Your task to perform on an android device: open a bookmark in the chrome app Image 0: 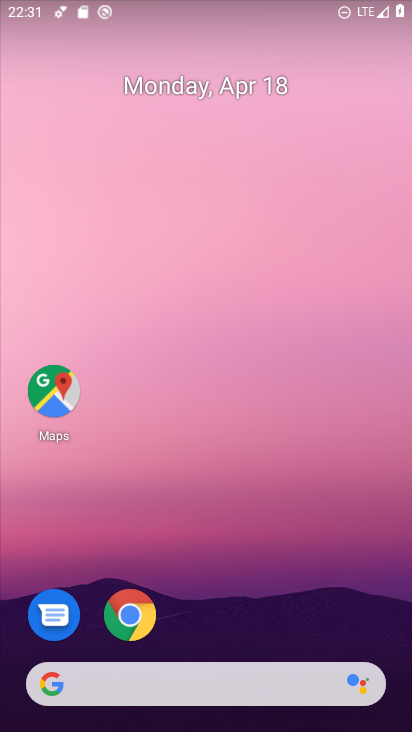
Step 0: click (127, 613)
Your task to perform on an android device: open a bookmark in the chrome app Image 1: 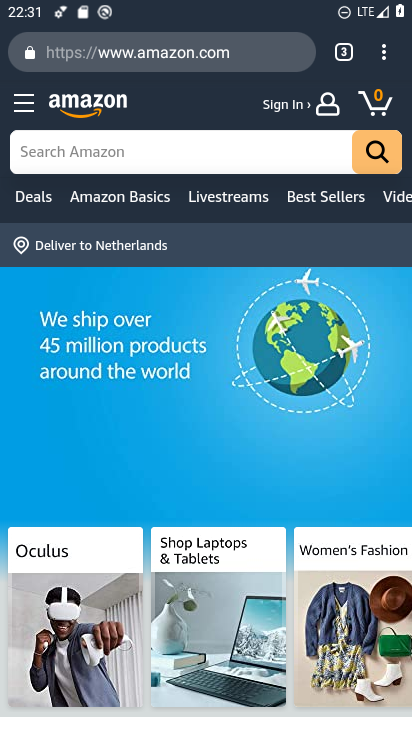
Step 1: click (386, 52)
Your task to perform on an android device: open a bookmark in the chrome app Image 2: 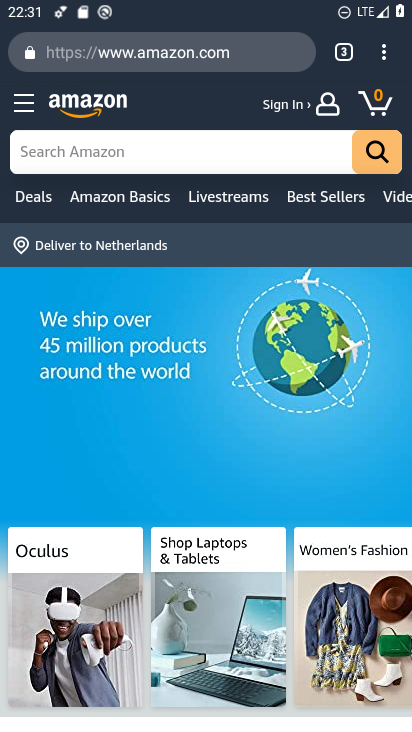
Step 2: click (386, 53)
Your task to perform on an android device: open a bookmark in the chrome app Image 3: 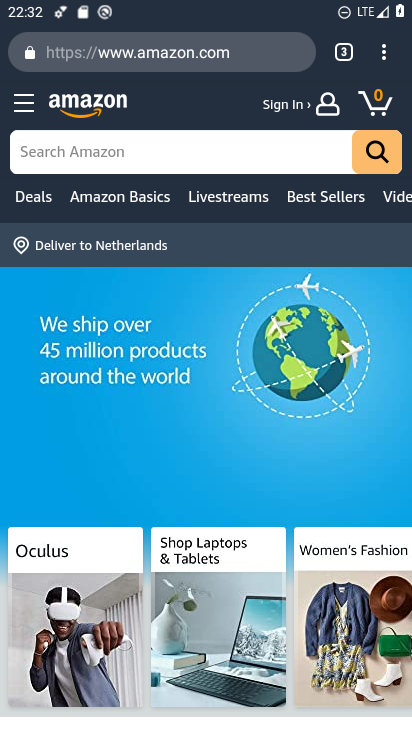
Step 3: click (386, 53)
Your task to perform on an android device: open a bookmark in the chrome app Image 4: 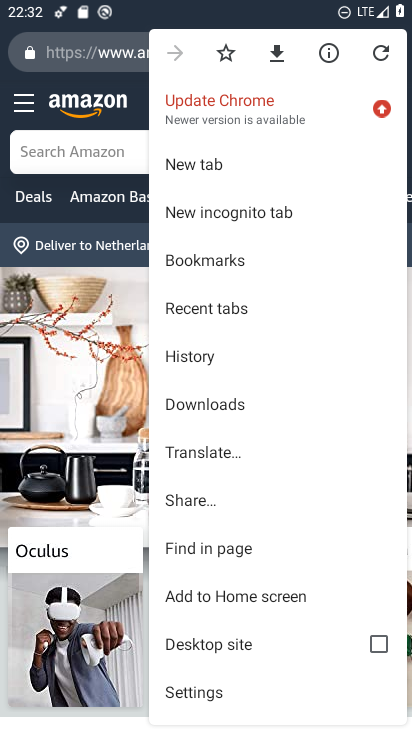
Step 4: click (196, 261)
Your task to perform on an android device: open a bookmark in the chrome app Image 5: 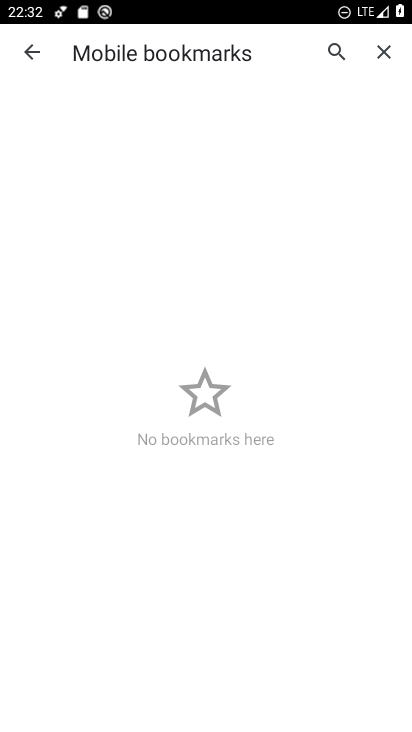
Step 5: task complete